Your task to perform on an android device: toggle pop-ups in chrome Image 0: 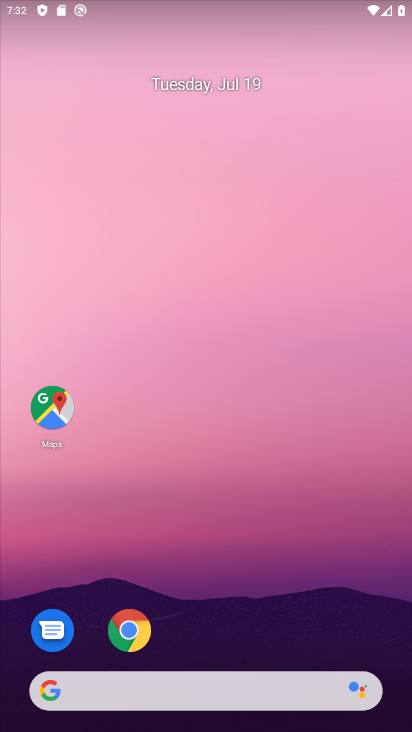
Step 0: drag from (254, 637) to (341, 116)
Your task to perform on an android device: toggle pop-ups in chrome Image 1: 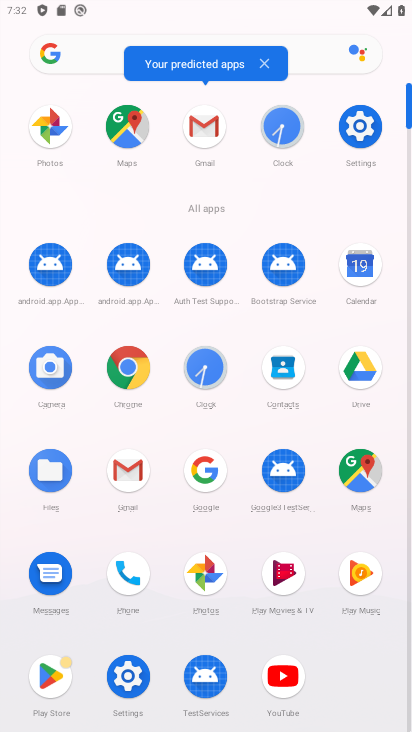
Step 1: click (138, 396)
Your task to perform on an android device: toggle pop-ups in chrome Image 2: 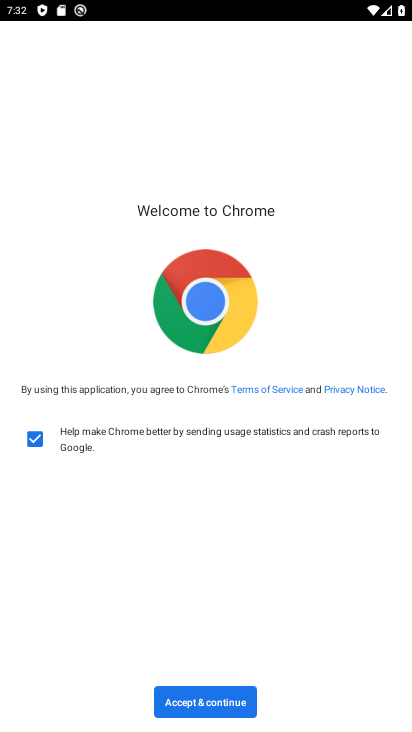
Step 2: click (203, 707)
Your task to perform on an android device: toggle pop-ups in chrome Image 3: 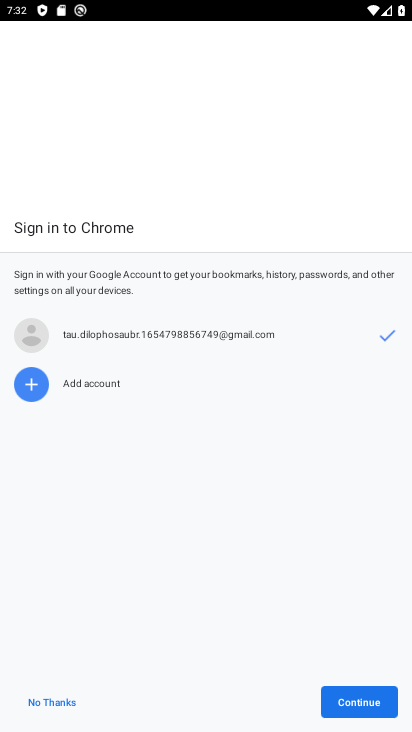
Step 3: click (369, 696)
Your task to perform on an android device: toggle pop-ups in chrome Image 4: 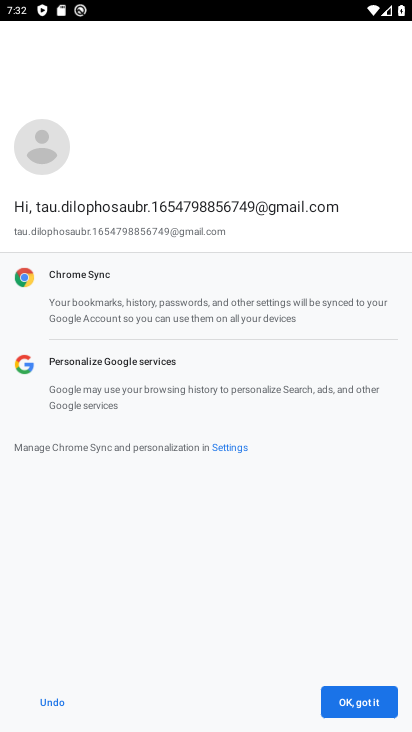
Step 4: click (373, 695)
Your task to perform on an android device: toggle pop-ups in chrome Image 5: 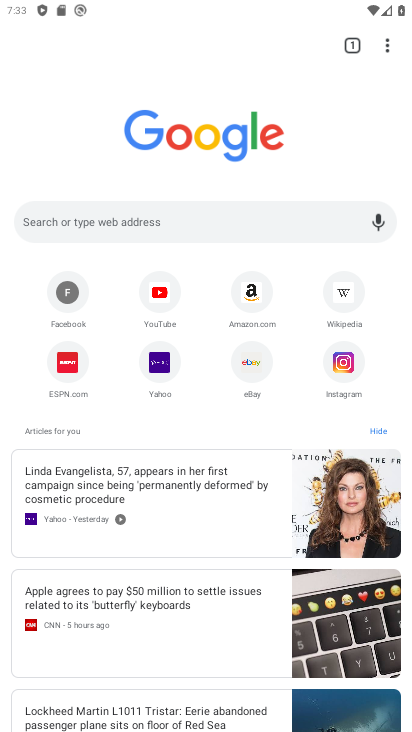
Step 5: click (391, 53)
Your task to perform on an android device: toggle pop-ups in chrome Image 6: 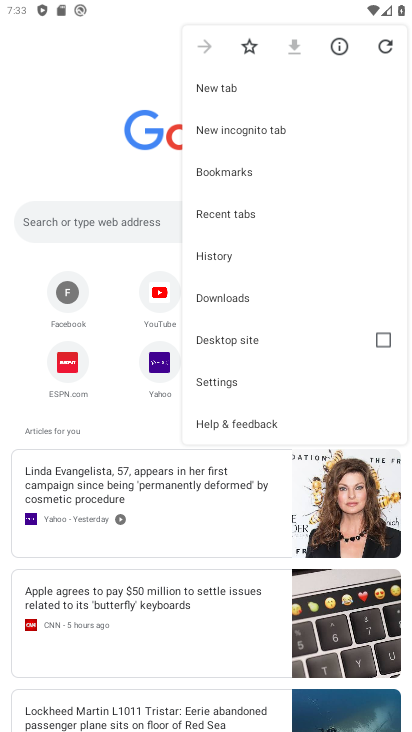
Step 6: click (218, 384)
Your task to perform on an android device: toggle pop-ups in chrome Image 7: 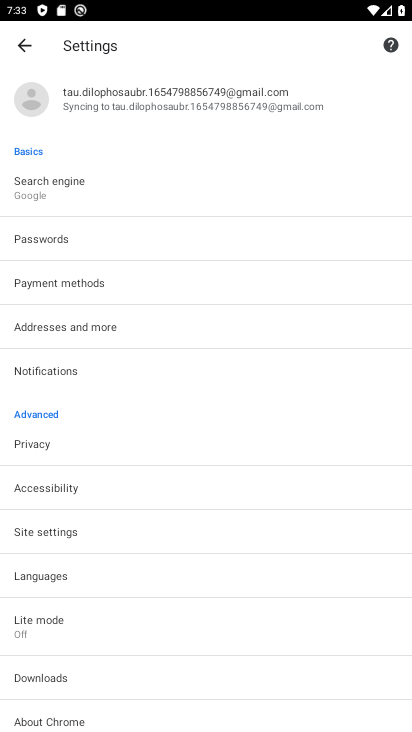
Step 7: click (59, 535)
Your task to perform on an android device: toggle pop-ups in chrome Image 8: 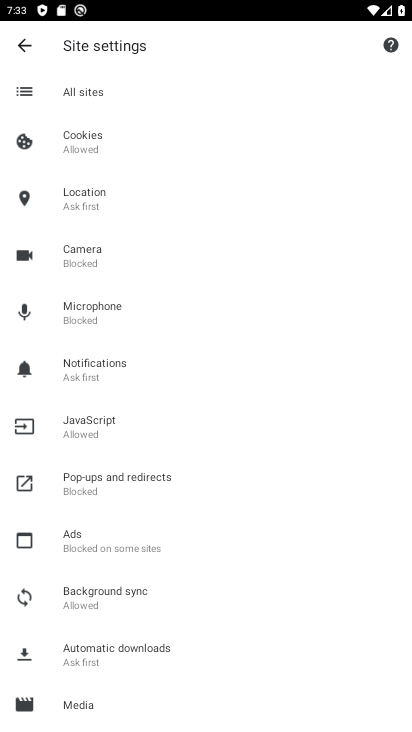
Step 8: drag from (107, 513) to (108, 425)
Your task to perform on an android device: toggle pop-ups in chrome Image 9: 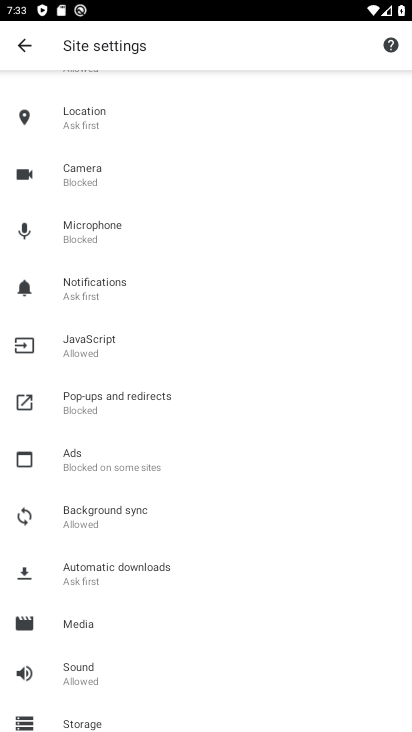
Step 9: click (111, 407)
Your task to perform on an android device: toggle pop-ups in chrome Image 10: 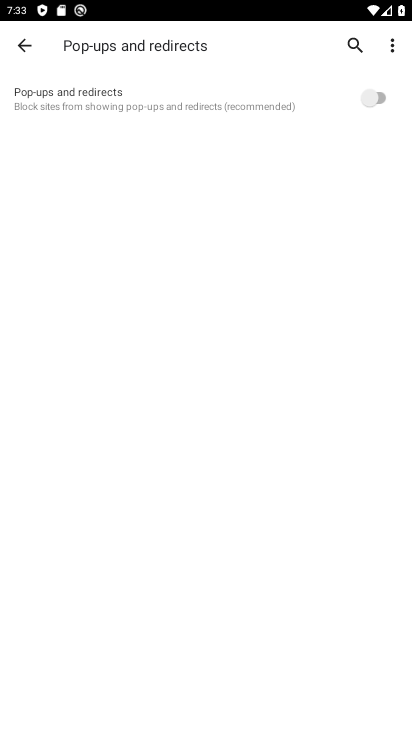
Step 10: click (384, 91)
Your task to perform on an android device: toggle pop-ups in chrome Image 11: 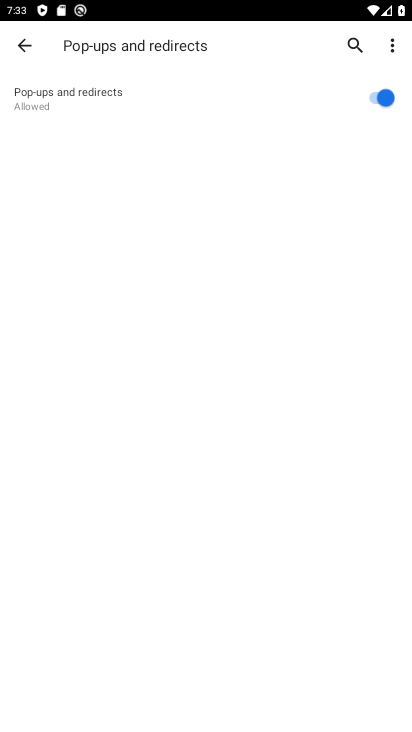
Step 11: task complete